Your task to perform on an android device: move an email to a new category in the gmail app Image 0: 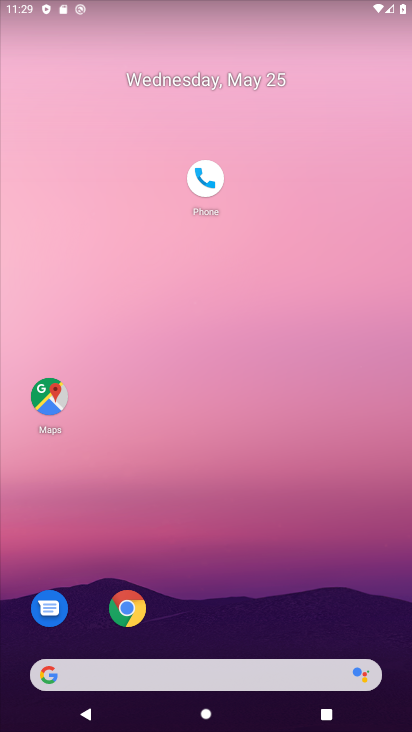
Step 0: drag from (191, 630) to (194, 370)
Your task to perform on an android device: move an email to a new category in the gmail app Image 1: 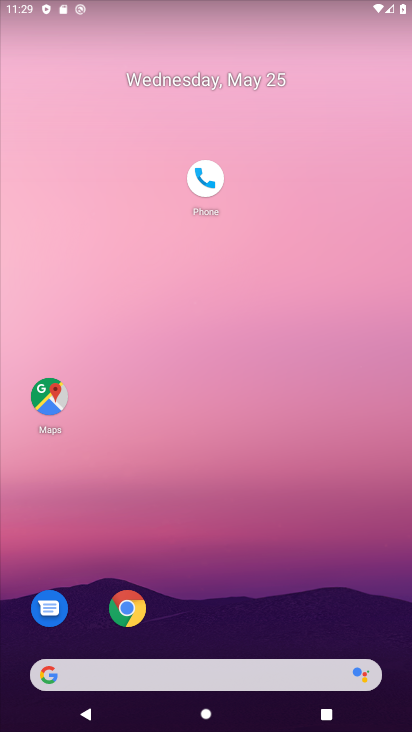
Step 1: drag from (349, 644) to (284, 138)
Your task to perform on an android device: move an email to a new category in the gmail app Image 2: 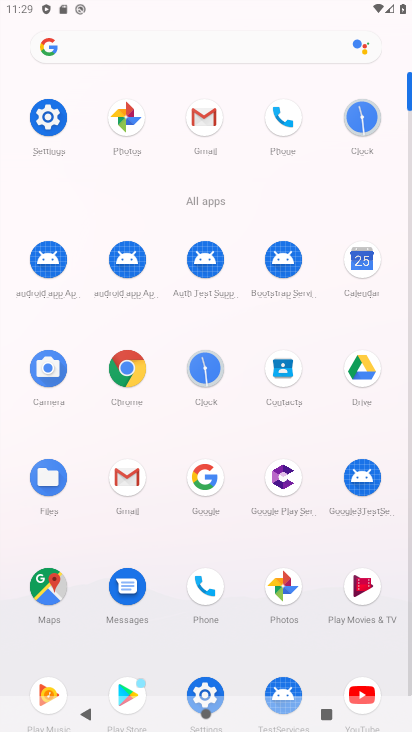
Step 2: click (206, 125)
Your task to perform on an android device: move an email to a new category in the gmail app Image 3: 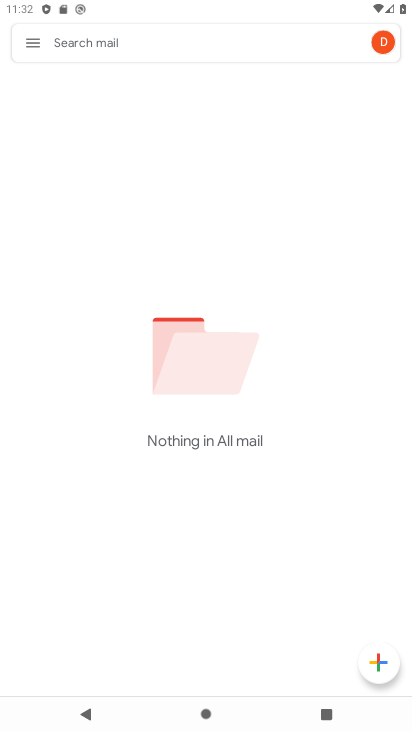
Step 3: task complete